Your task to perform on an android device: see creations saved in the google photos Image 0: 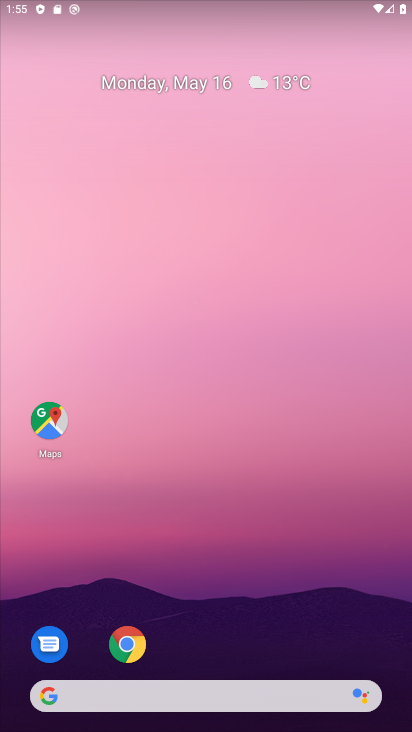
Step 0: drag from (311, 677) to (261, 424)
Your task to perform on an android device: see creations saved in the google photos Image 1: 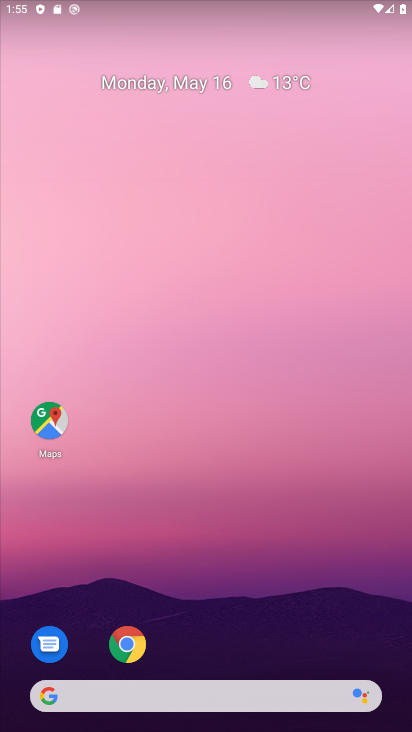
Step 1: drag from (225, 673) to (116, 260)
Your task to perform on an android device: see creations saved in the google photos Image 2: 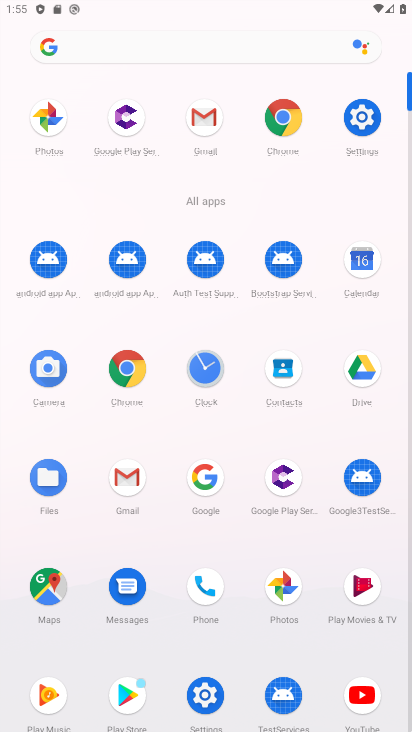
Step 2: click (47, 124)
Your task to perform on an android device: see creations saved in the google photos Image 3: 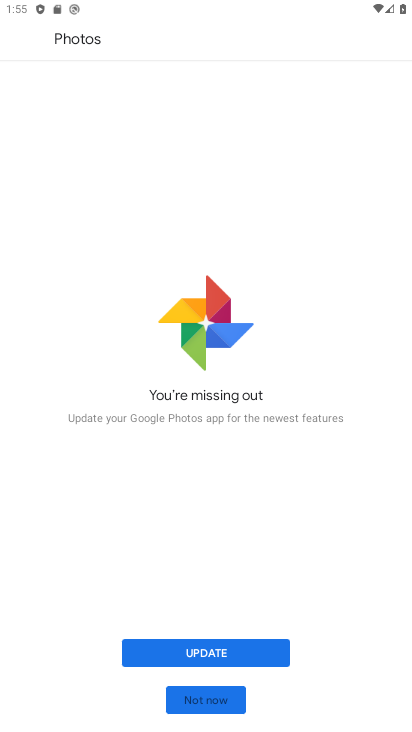
Step 3: click (198, 699)
Your task to perform on an android device: see creations saved in the google photos Image 4: 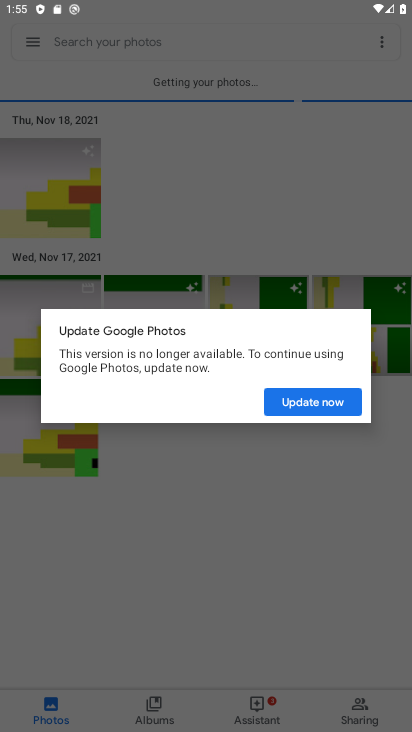
Step 4: task complete